Your task to perform on an android device: Search for Italian restaurants on Maps Image 0: 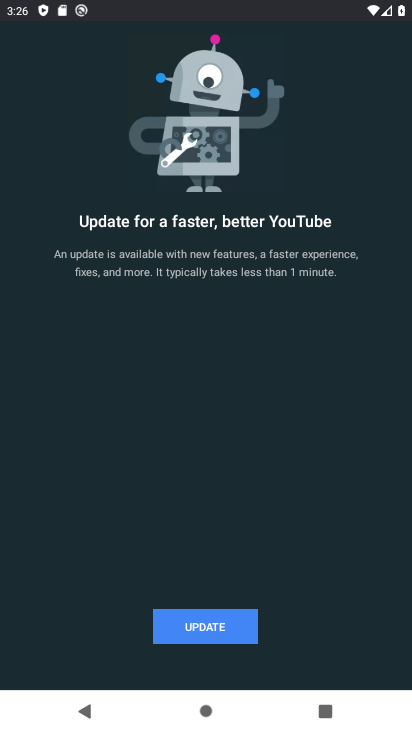
Step 0: press home button
Your task to perform on an android device: Search for Italian restaurants on Maps Image 1: 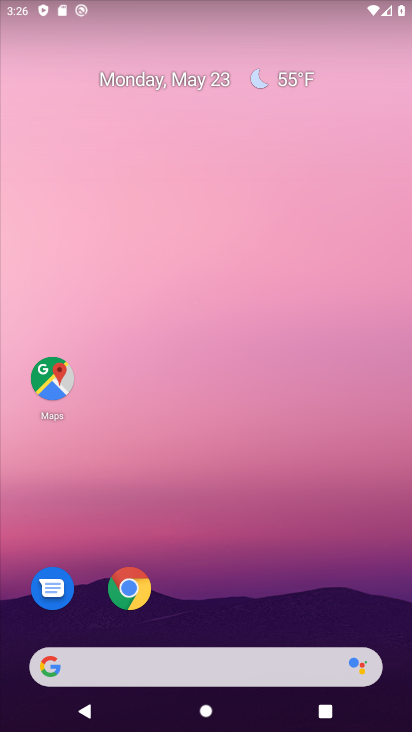
Step 1: click (60, 383)
Your task to perform on an android device: Search for Italian restaurants on Maps Image 2: 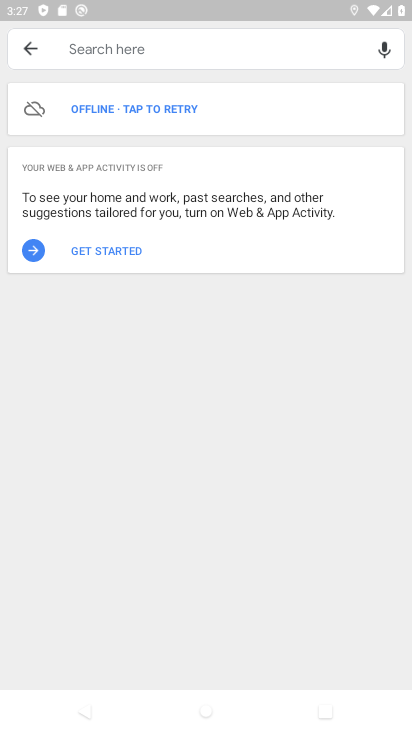
Step 2: click (87, 253)
Your task to perform on an android device: Search for Italian restaurants on Maps Image 3: 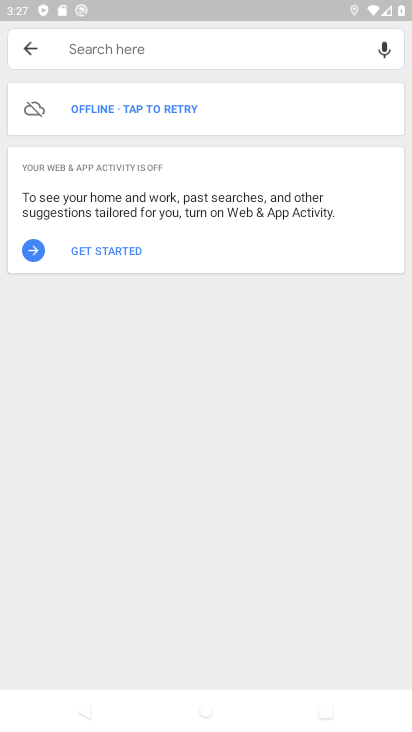
Step 3: click (171, 58)
Your task to perform on an android device: Search for Italian restaurants on Maps Image 4: 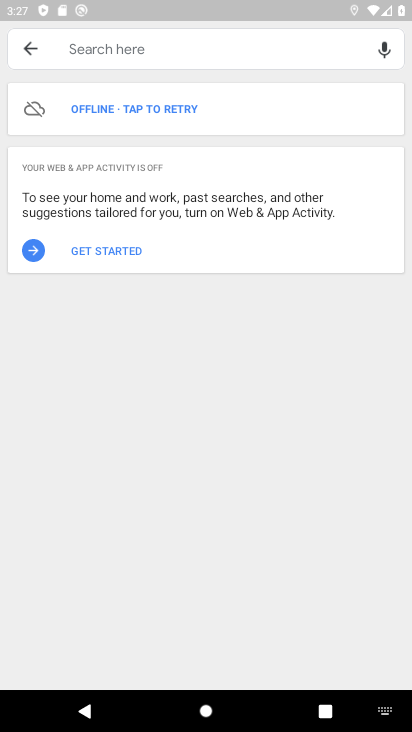
Step 4: type "italian restaurent"
Your task to perform on an android device: Search for Italian restaurants on Maps Image 5: 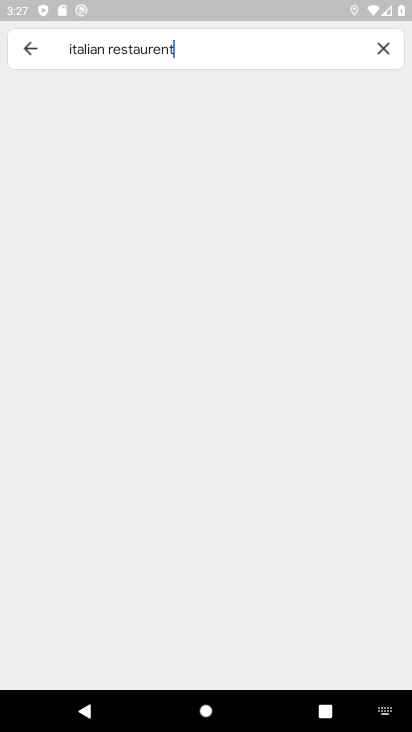
Step 5: press back button
Your task to perform on an android device: Search for Italian restaurants on Maps Image 6: 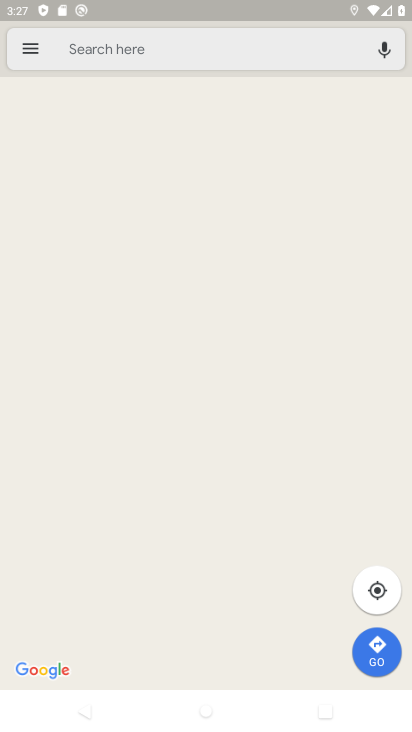
Step 6: click (163, 50)
Your task to perform on an android device: Search for Italian restaurants on Maps Image 7: 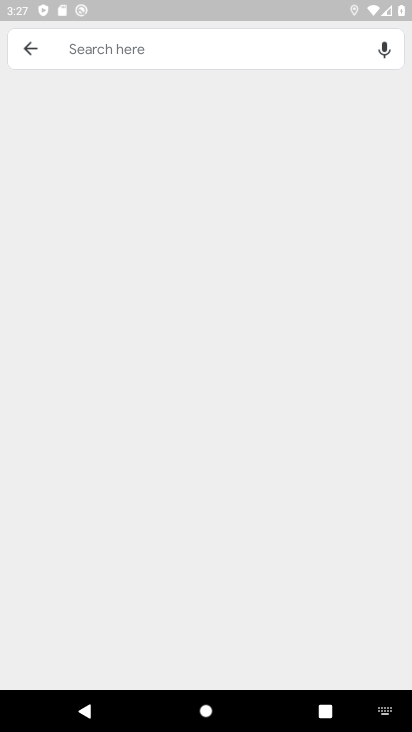
Step 7: task complete